Your task to perform on an android device: Open Google Maps Image 0: 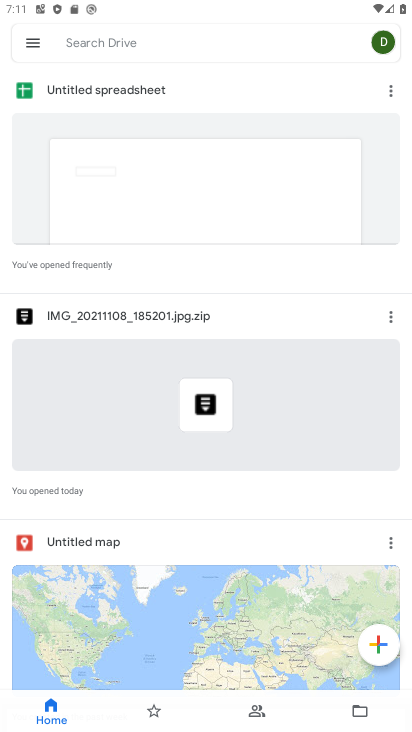
Step 0: press home button
Your task to perform on an android device: Open Google Maps Image 1: 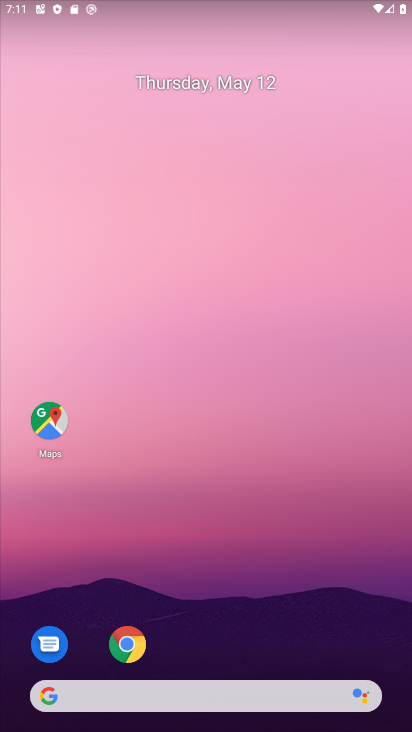
Step 1: drag from (288, 691) to (179, 131)
Your task to perform on an android device: Open Google Maps Image 2: 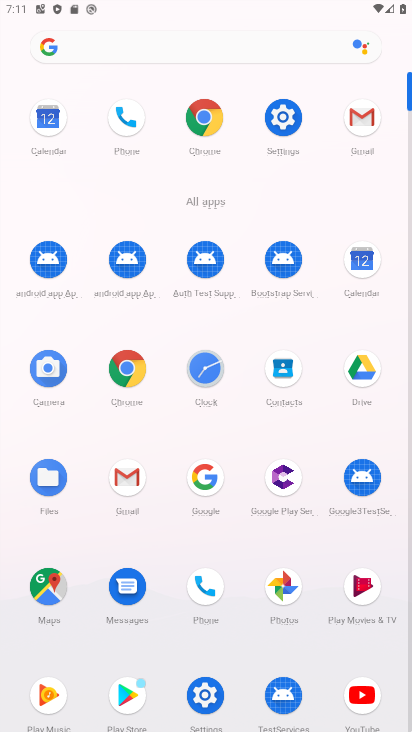
Step 2: click (64, 580)
Your task to perform on an android device: Open Google Maps Image 3: 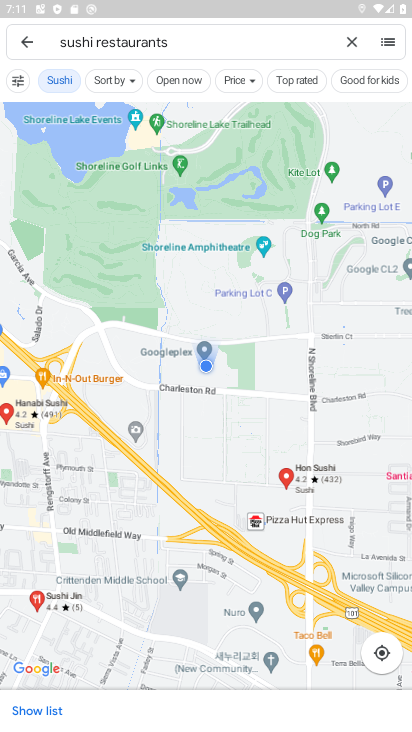
Step 3: click (387, 654)
Your task to perform on an android device: Open Google Maps Image 4: 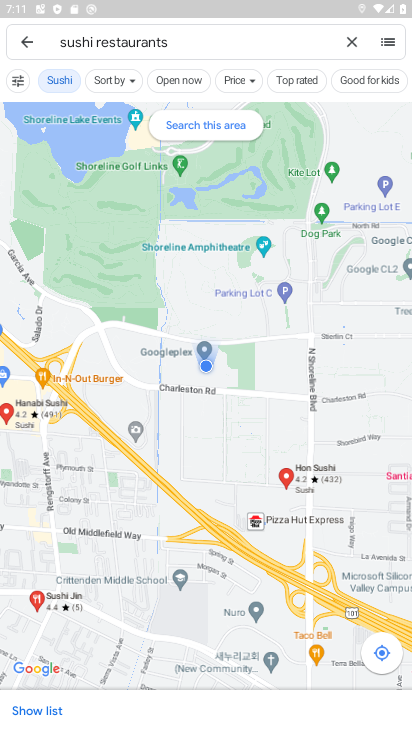
Step 4: task complete